Your task to perform on an android device: check out phone information Image 0: 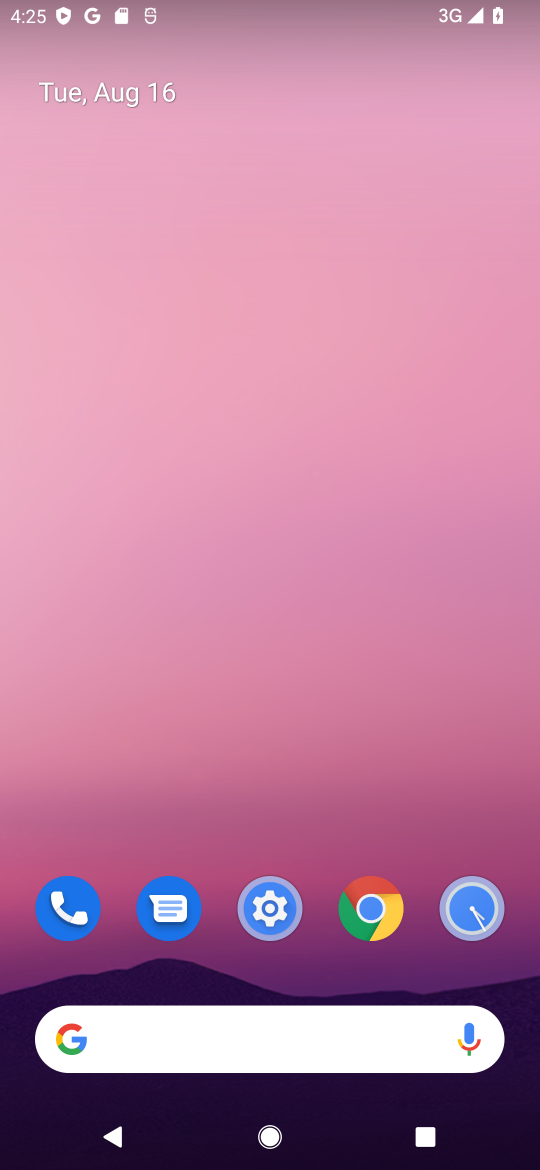
Step 0: drag from (298, 909) to (378, 41)
Your task to perform on an android device: check out phone information Image 1: 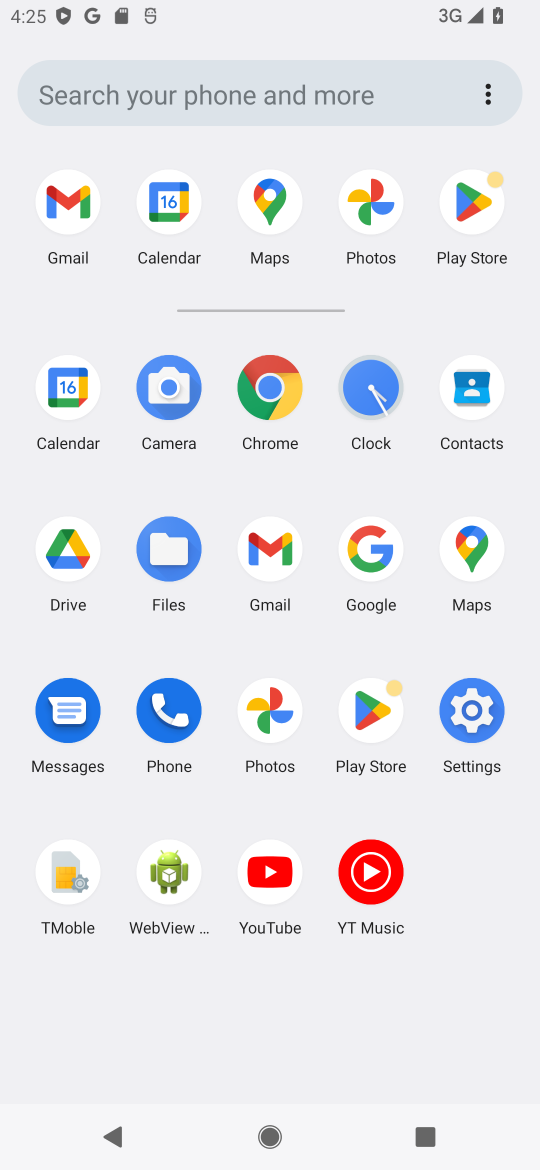
Step 1: click (478, 726)
Your task to perform on an android device: check out phone information Image 2: 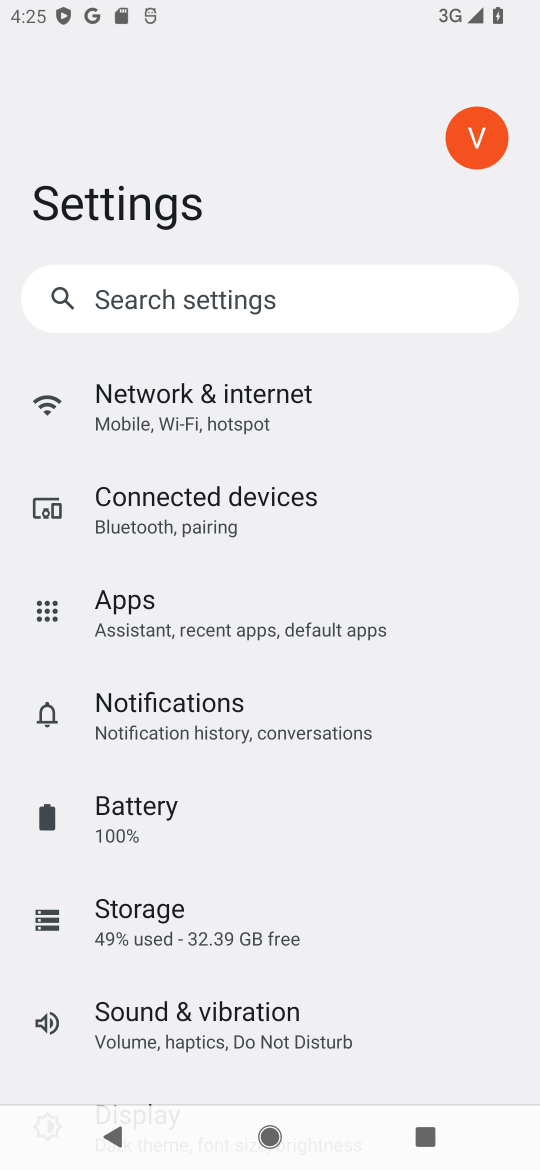
Step 2: drag from (215, 954) to (338, 25)
Your task to perform on an android device: check out phone information Image 3: 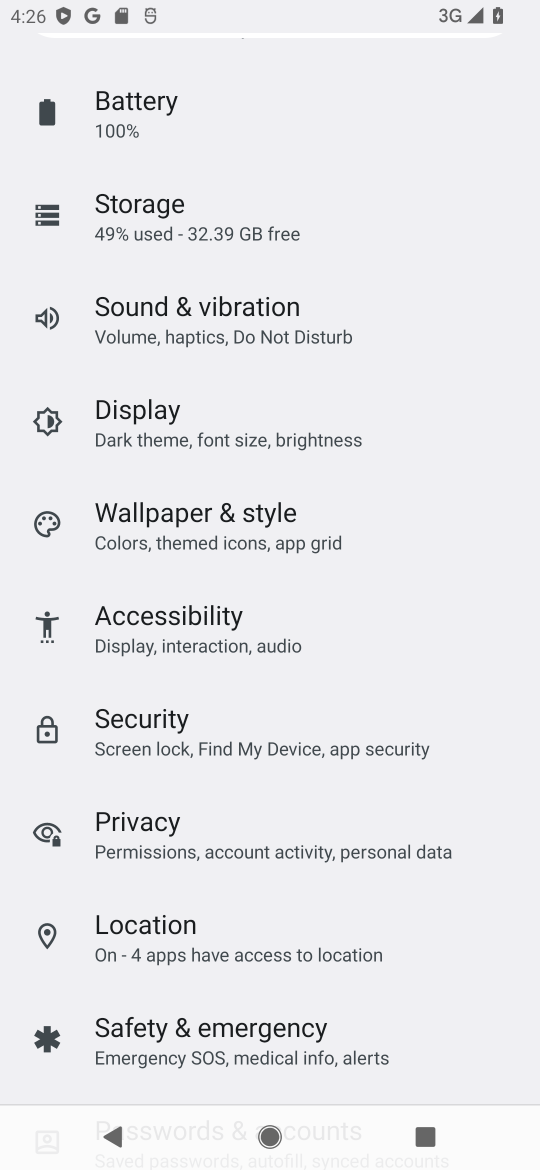
Step 3: drag from (255, 991) to (400, 0)
Your task to perform on an android device: check out phone information Image 4: 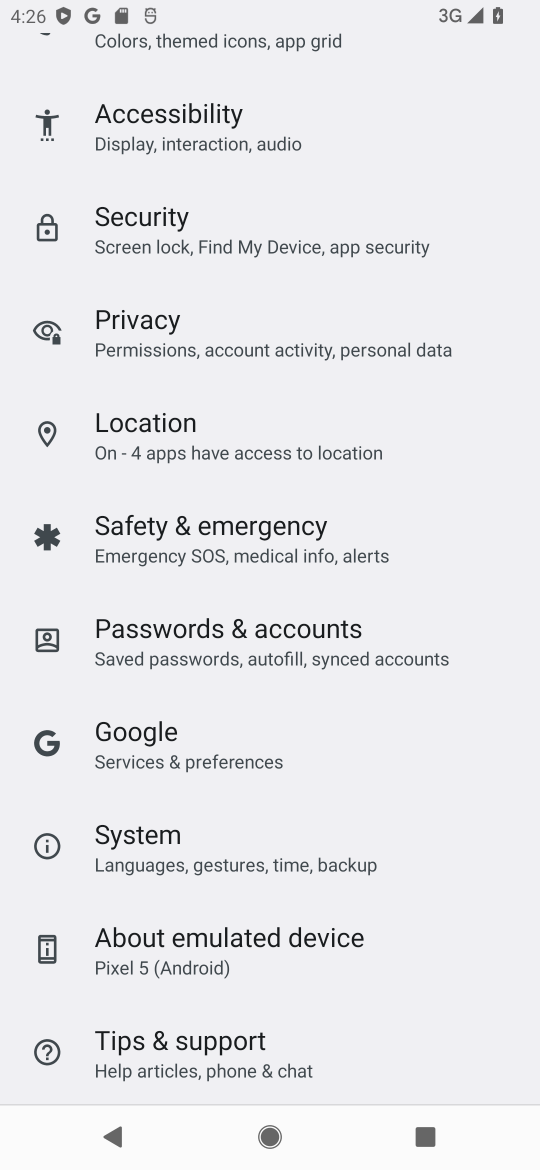
Step 4: drag from (229, 1028) to (396, 1)
Your task to perform on an android device: check out phone information Image 5: 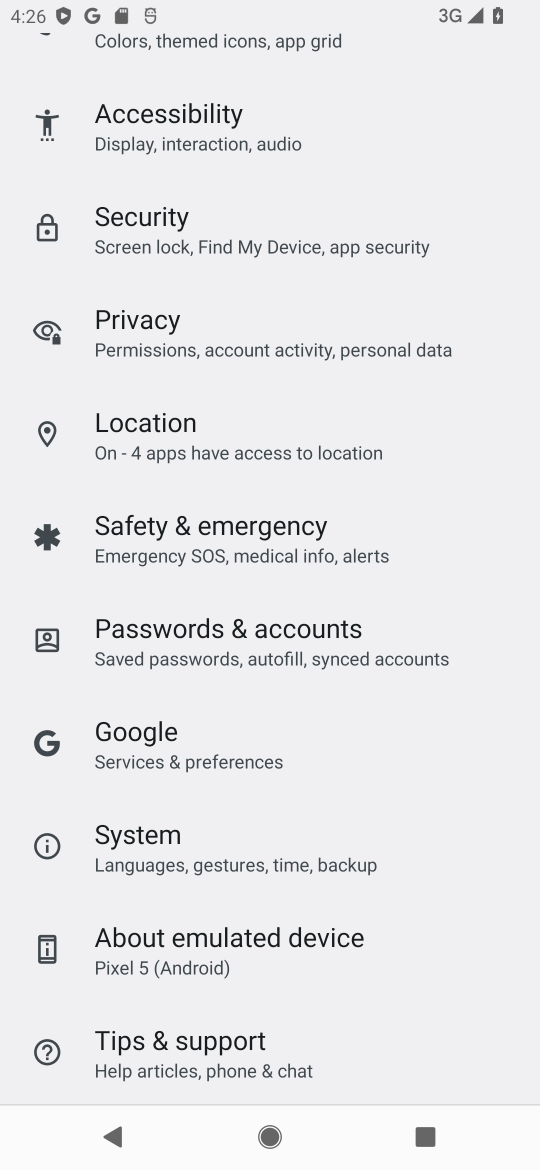
Step 5: click (191, 943)
Your task to perform on an android device: check out phone information Image 6: 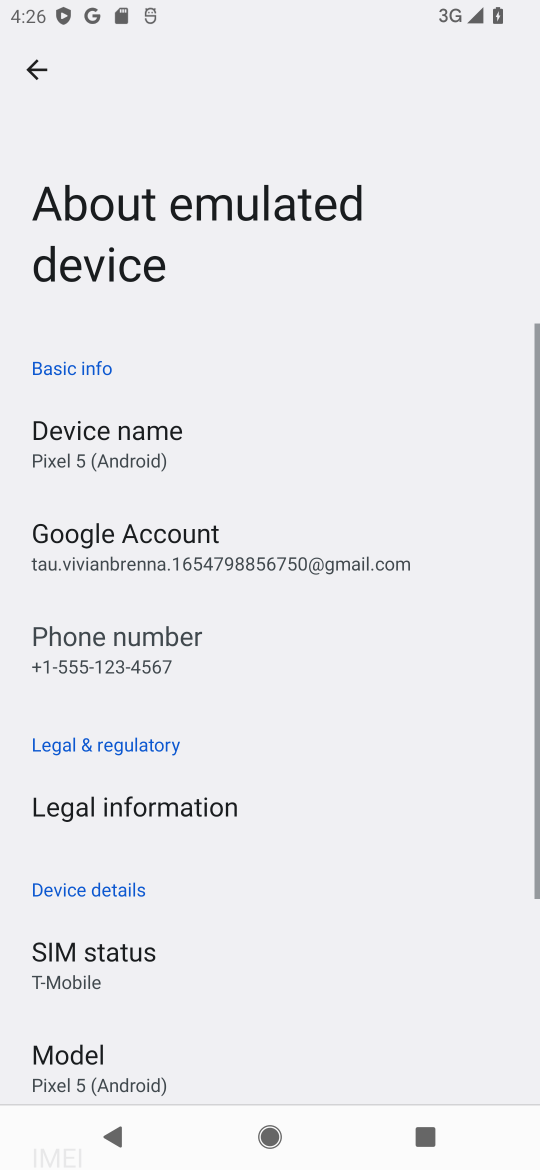
Step 6: task complete